Your task to perform on an android device: Go to sound settings Image 0: 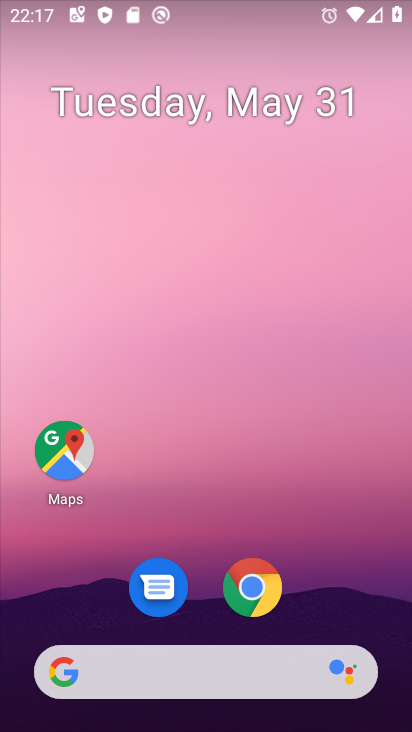
Step 0: drag from (379, 618) to (363, 354)
Your task to perform on an android device: Go to sound settings Image 1: 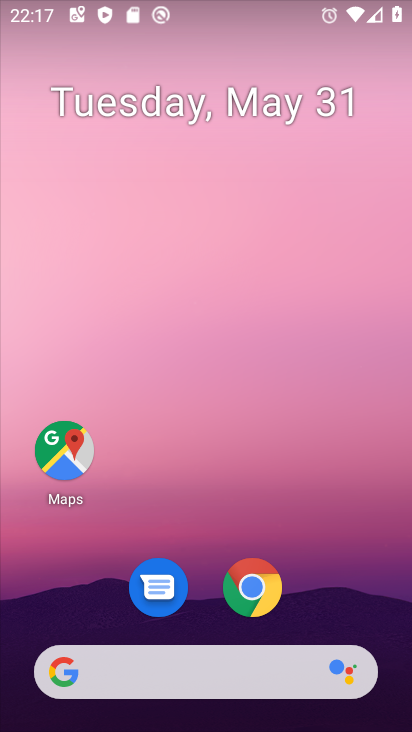
Step 1: drag from (353, 600) to (322, 225)
Your task to perform on an android device: Go to sound settings Image 2: 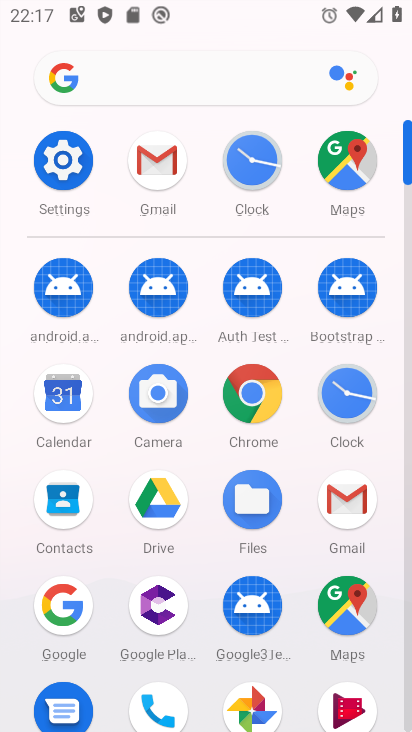
Step 2: click (86, 216)
Your task to perform on an android device: Go to sound settings Image 3: 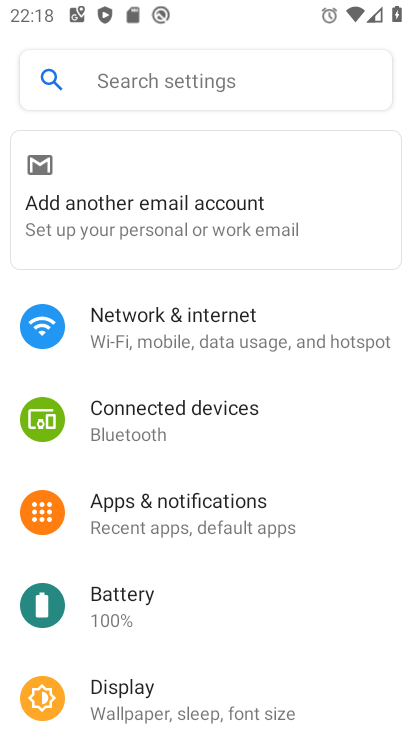
Step 3: drag from (348, 379) to (348, 511)
Your task to perform on an android device: Go to sound settings Image 4: 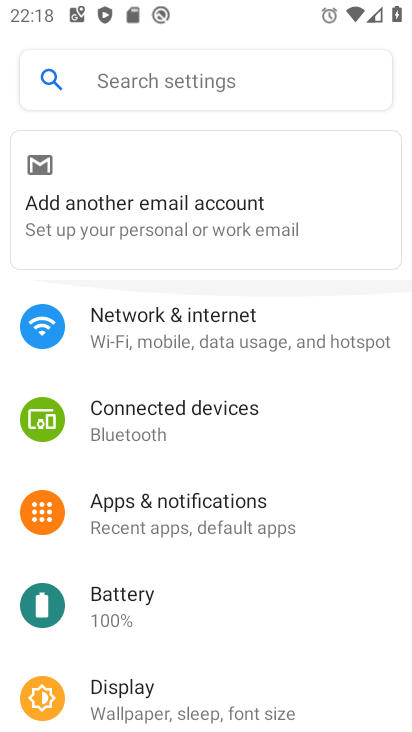
Step 4: drag from (343, 516) to (344, 414)
Your task to perform on an android device: Go to sound settings Image 5: 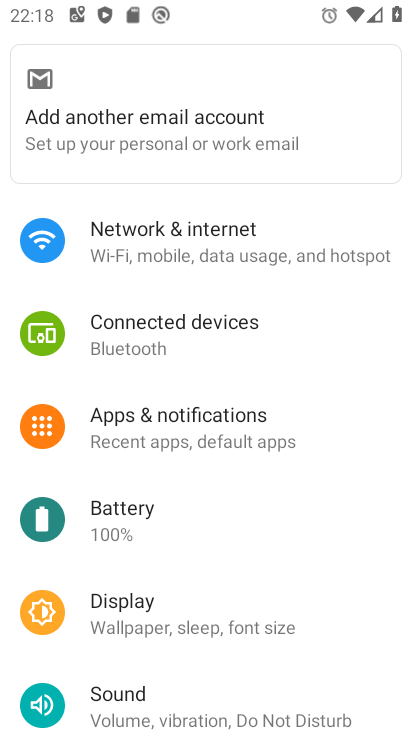
Step 5: drag from (349, 532) to (345, 436)
Your task to perform on an android device: Go to sound settings Image 6: 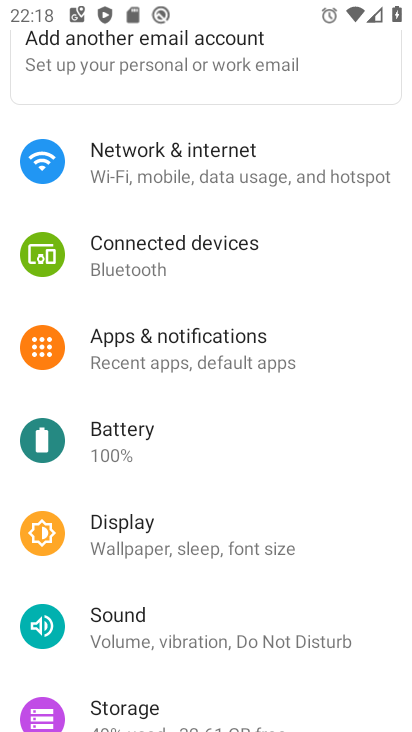
Step 6: drag from (353, 549) to (362, 458)
Your task to perform on an android device: Go to sound settings Image 7: 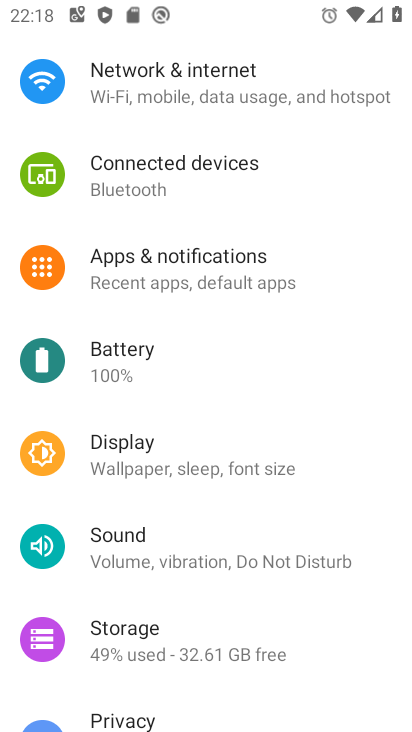
Step 7: drag from (362, 557) to (364, 414)
Your task to perform on an android device: Go to sound settings Image 8: 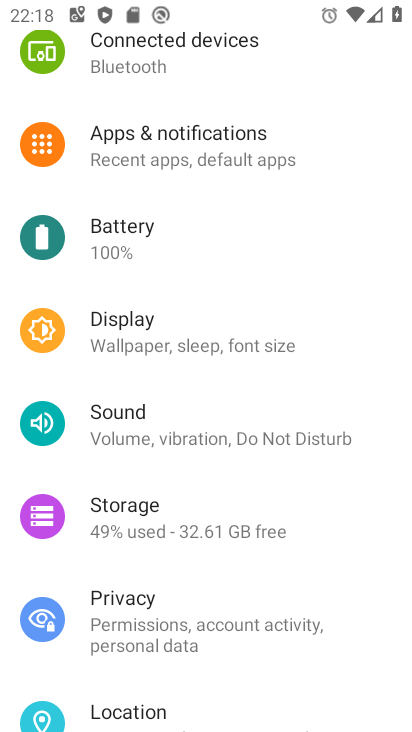
Step 8: drag from (354, 493) to (355, 406)
Your task to perform on an android device: Go to sound settings Image 9: 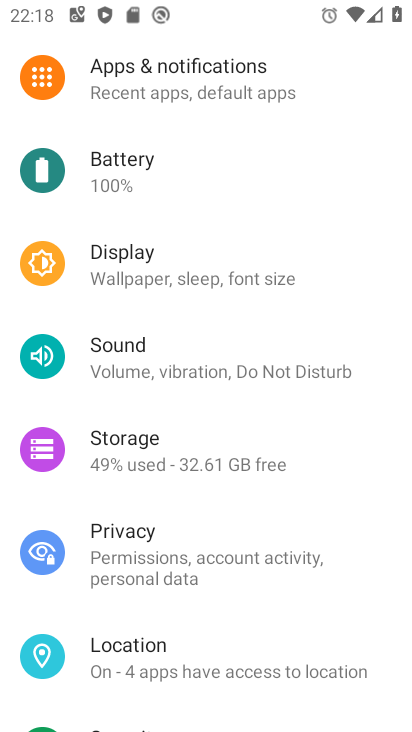
Step 9: drag from (354, 486) to (352, 406)
Your task to perform on an android device: Go to sound settings Image 10: 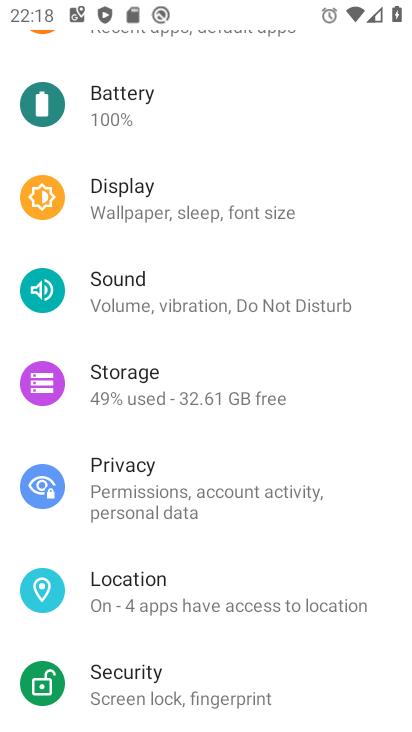
Step 10: drag from (348, 489) to (347, 418)
Your task to perform on an android device: Go to sound settings Image 11: 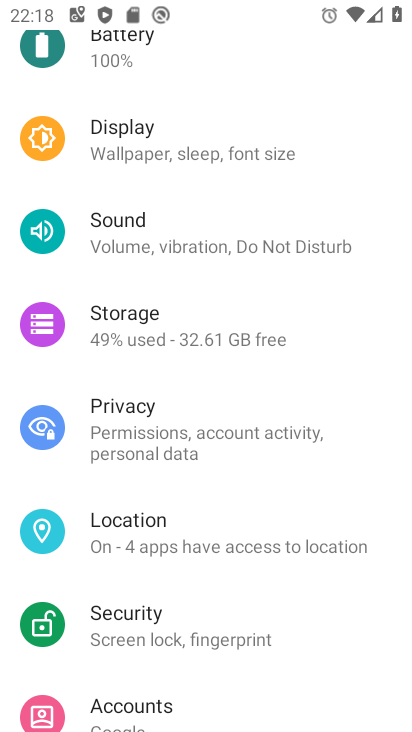
Step 11: click (342, 242)
Your task to perform on an android device: Go to sound settings Image 12: 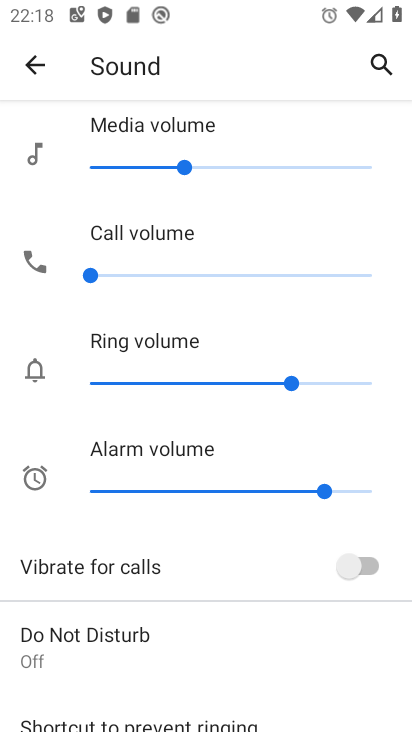
Step 12: task complete